Your task to perform on an android device: check out phone information Image 0: 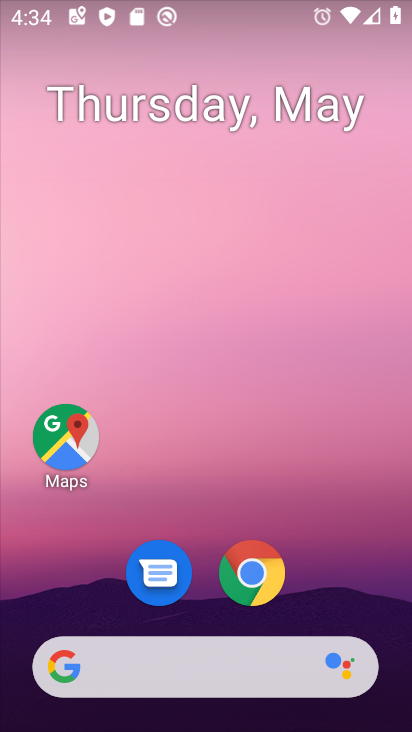
Step 0: drag from (264, 426) to (219, 131)
Your task to perform on an android device: check out phone information Image 1: 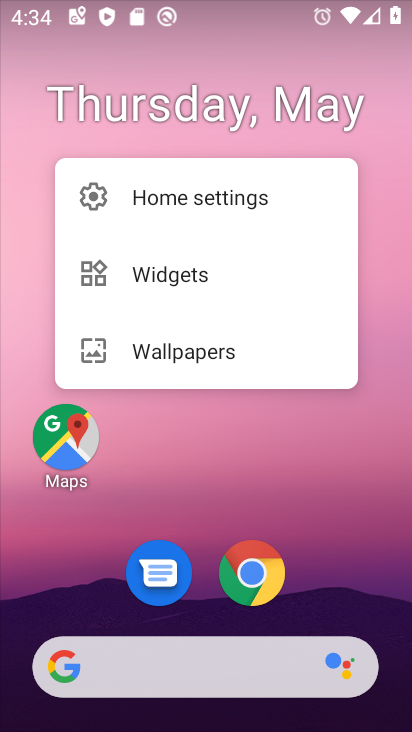
Step 1: click (296, 476)
Your task to perform on an android device: check out phone information Image 2: 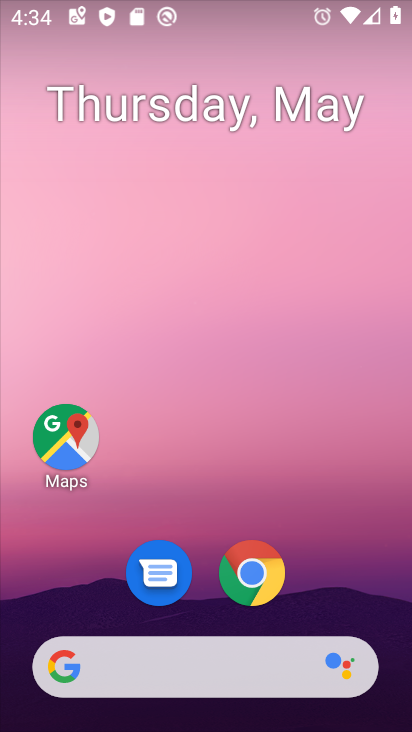
Step 2: drag from (302, 618) to (242, 180)
Your task to perform on an android device: check out phone information Image 3: 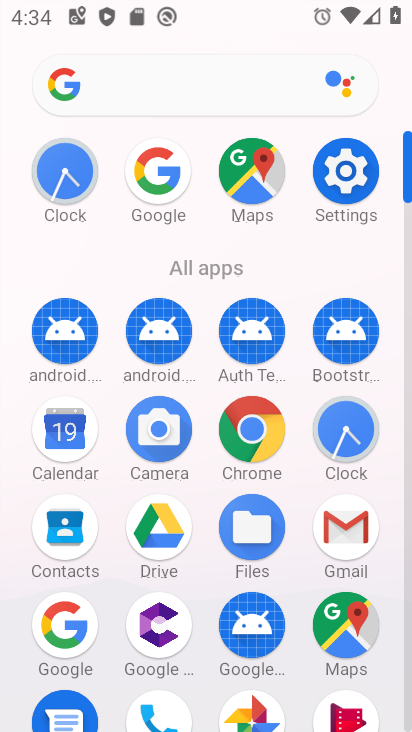
Step 3: click (343, 176)
Your task to perform on an android device: check out phone information Image 4: 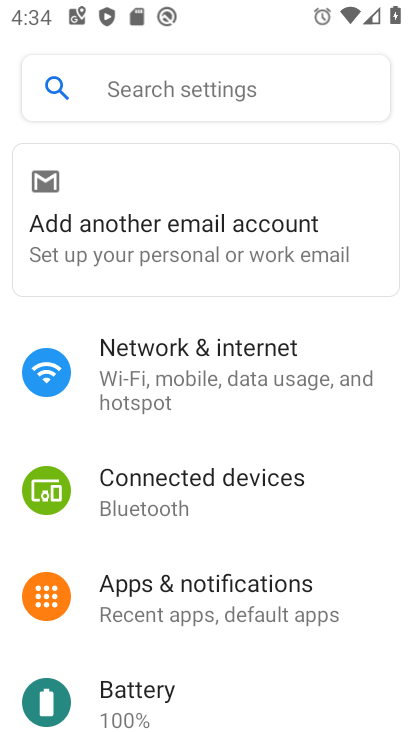
Step 4: drag from (198, 649) to (226, 166)
Your task to perform on an android device: check out phone information Image 5: 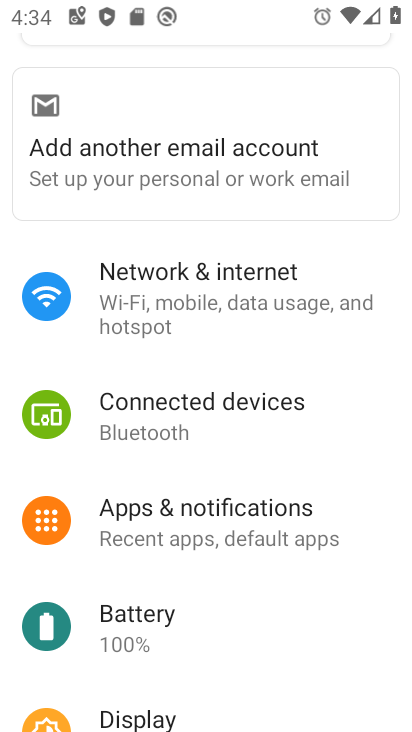
Step 5: drag from (211, 624) to (253, 261)
Your task to perform on an android device: check out phone information Image 6: 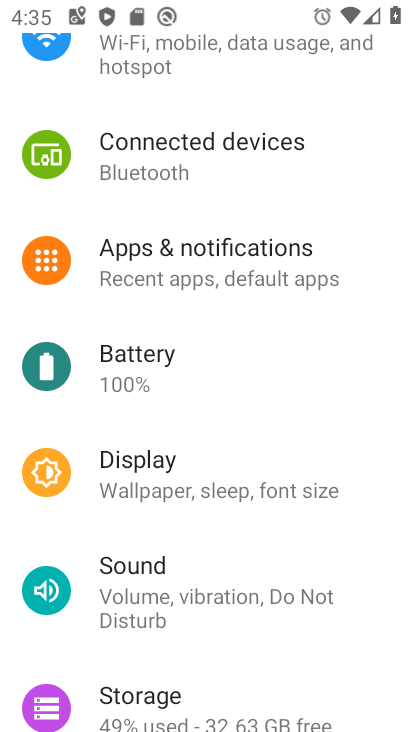
Step 6: drag from (219, 240) to (234, 124)
Your task to perform on an android device: check out phone information Image 7: 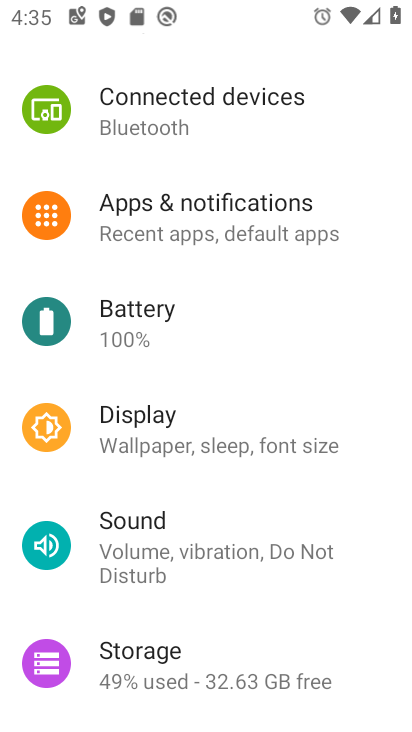
Step 7: drag from (232, 606) to (222, 77)
Your task to perform on an android device: check out phone information Image 8: 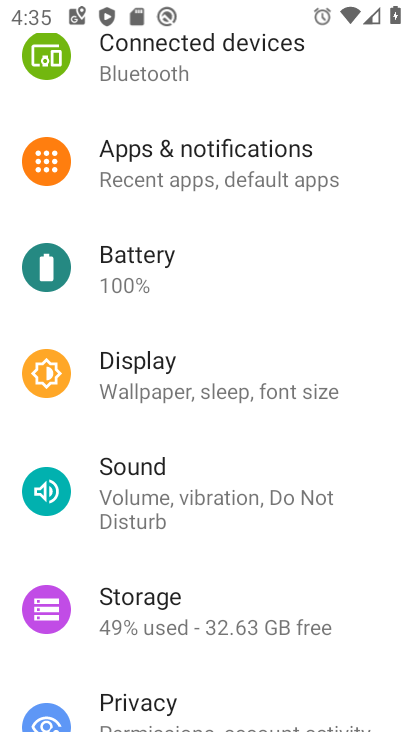
Step 8: drag from (202, 414) to (202, 67)
Your task to perform on an android device: check out phone information Image 9: 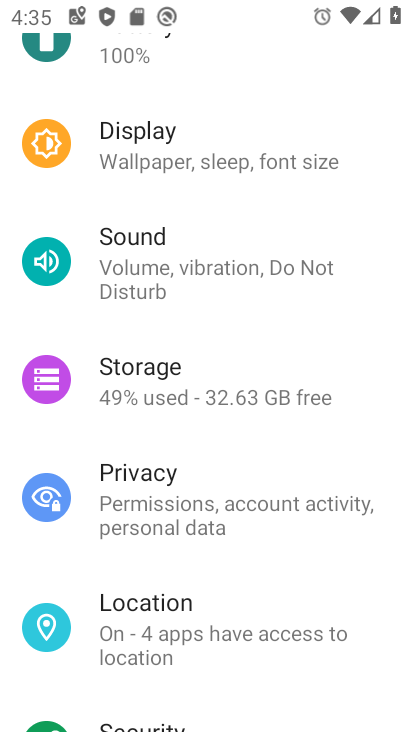
Step 9: drag from (221, 395) to (256, 61)
Your task to perform on an android device: check out phone information Image 10: 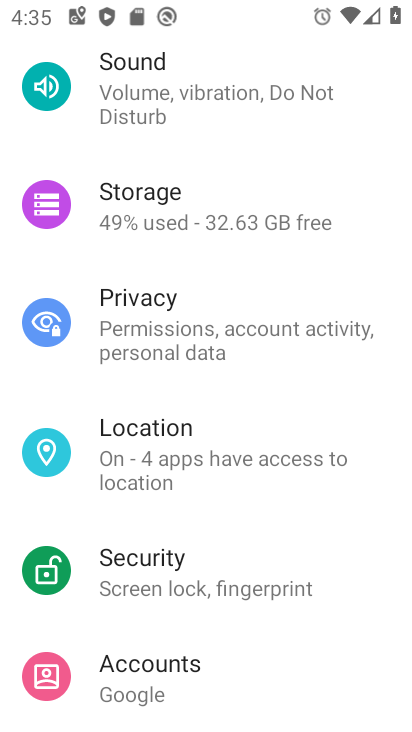
Step 10: drag from (217, 621) to (205, 146)
Your task to perform on an android device: check out phone information Image 11: 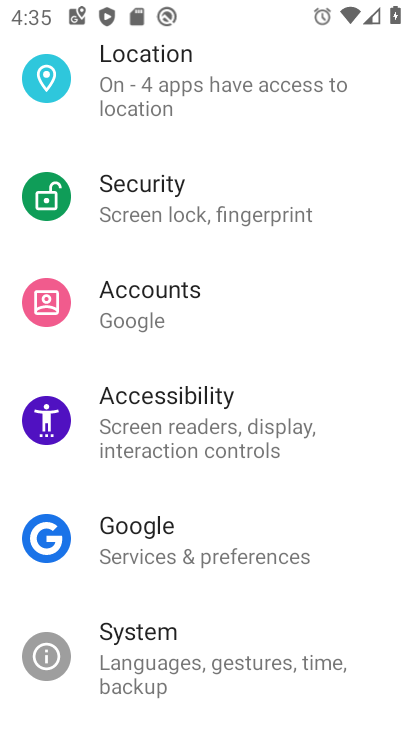
Step 11: click (186, 170)
Your task to perform on an android device: check out phone information Image 12: 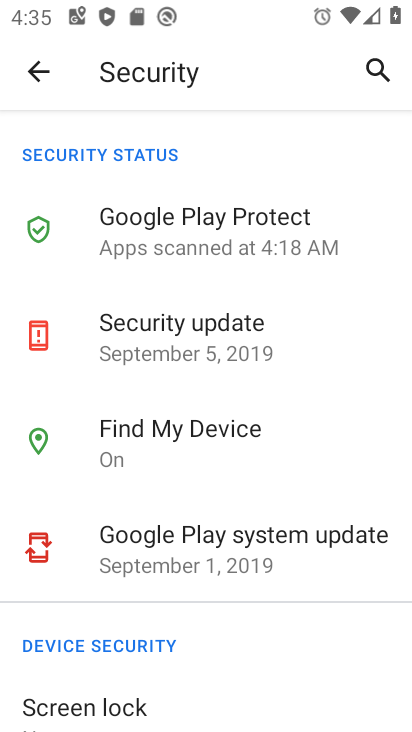
Step 12: press back button
Your task to perform on an android device: check out phone information Image 13: 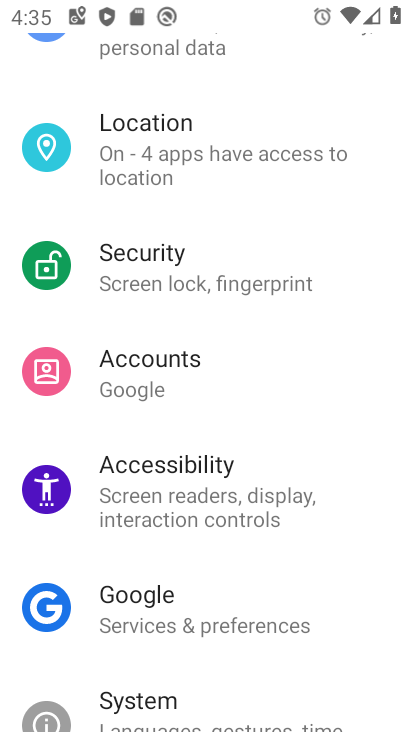
Step 13: drag from (217, 662) to (215, 344)
Your task to perform on an android device: check out phone information Image 14: 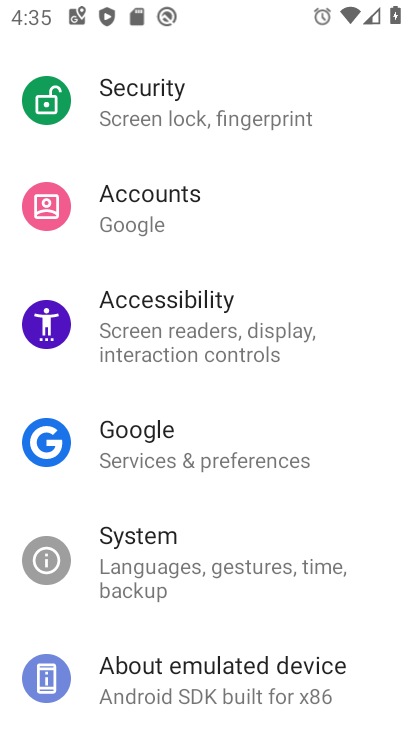
Step 14: click (234, 693)
Your task to perform on an android device: check out phone information Image 15: 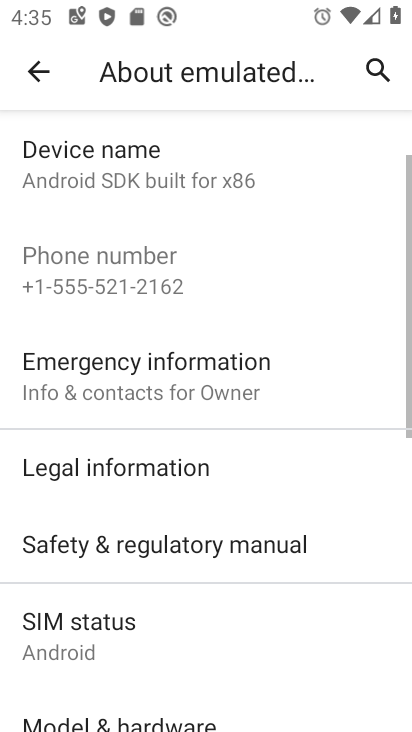
Step 15: task complete